Your task to perform on an android device: Open the phone app and click the voicemail tab. Image 0: 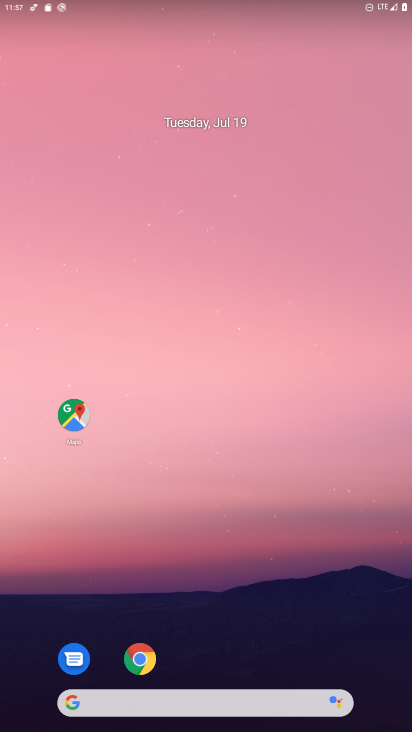
Step 0: drag from (318, 624) to (259, 151)
Your task to perform on an android device: Open the phone app and click the voicemail tab. Image 1: 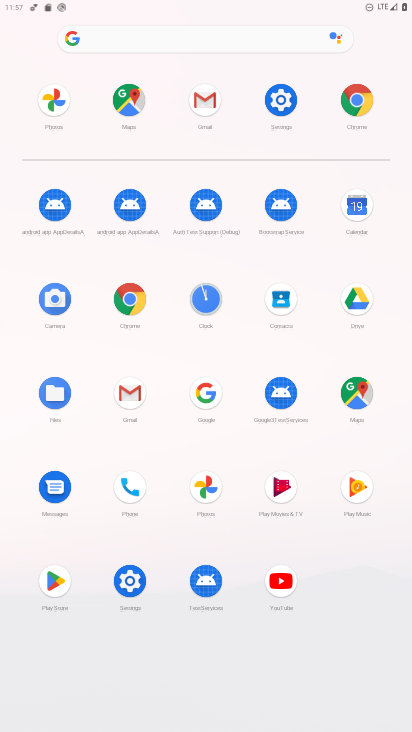
Step 1: click (127, 489)
Your task to perform on an android device: Open the phone app and click the voicemail tab. Image 2: 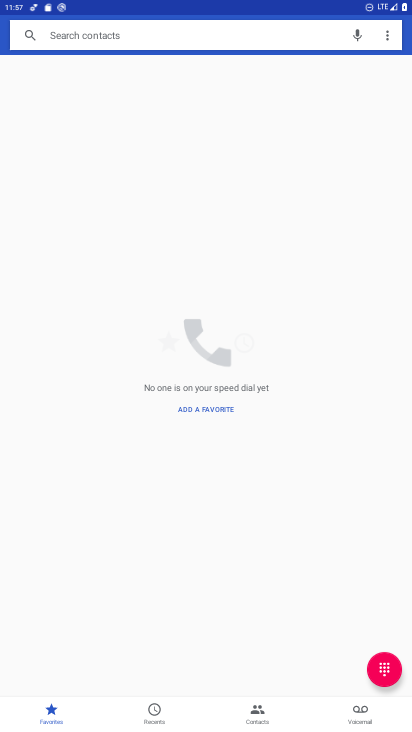
Step 2: click (347, 701)
Your task to perform on an android device: Open the phone app and click the voicemail tab. Image 3: 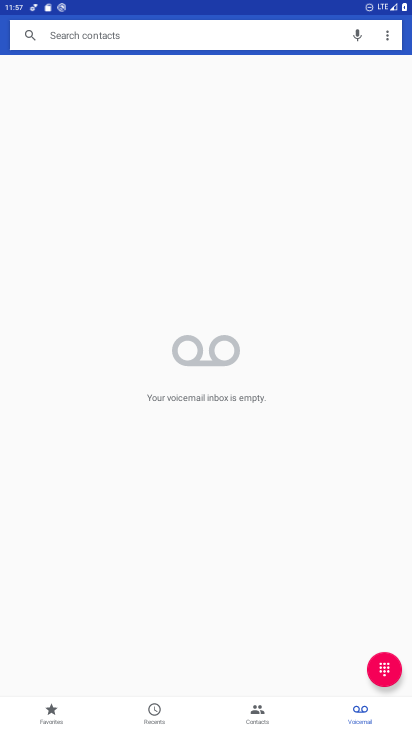
Step 3: task complete